Your task to perform on an android device: Open location settings Image 0: 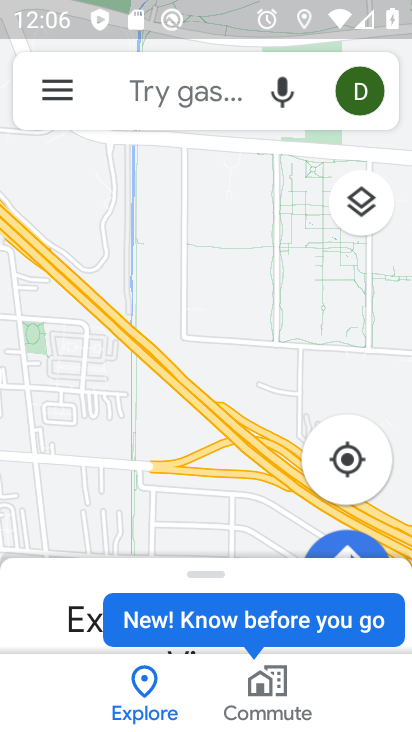
Step 0: press home button
Your task to perform on an android device: Open location settings Image 1: 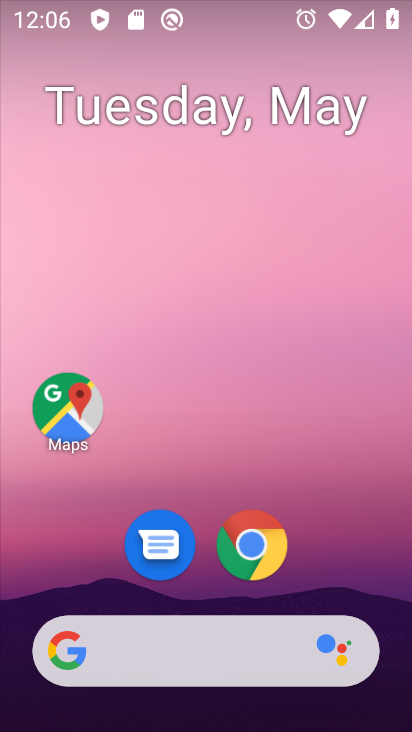
Step 1: drag from (326, 519) to (244, 139)
Your task to perform on an android device: Open location settings Image 2: 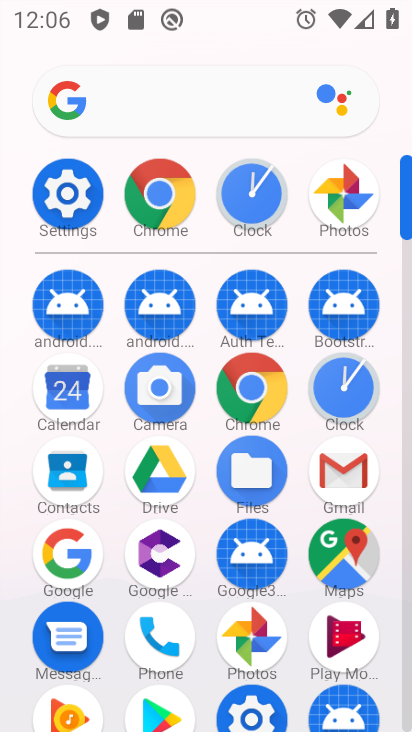
Step 2: click (60, 213)
Your task to perform on an android device: Open location settings Image 3: 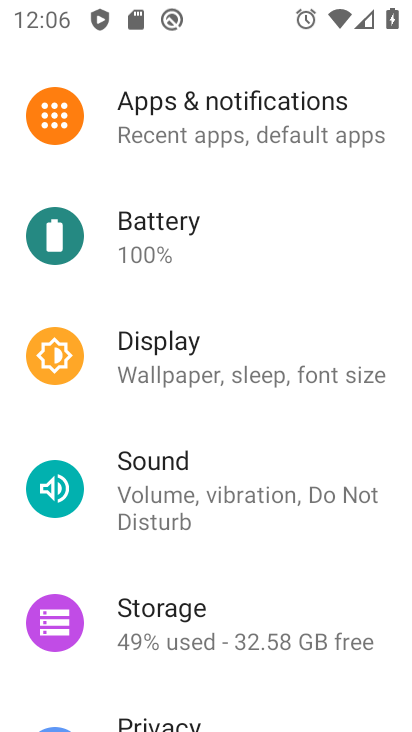
Step 3: drag from (294, 571) to (298, 429)
Your task to perform on an android device: Open location settings Image 4: 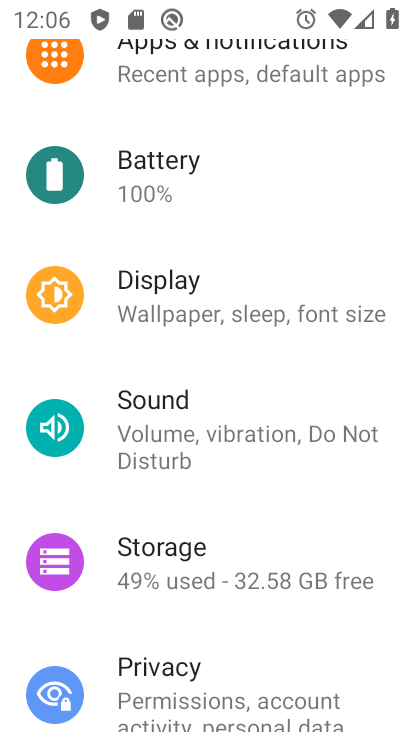
Step 4: drag from (327, 601) to (331, 493)
Your task to perform on an android device: Open location settings Image 5: 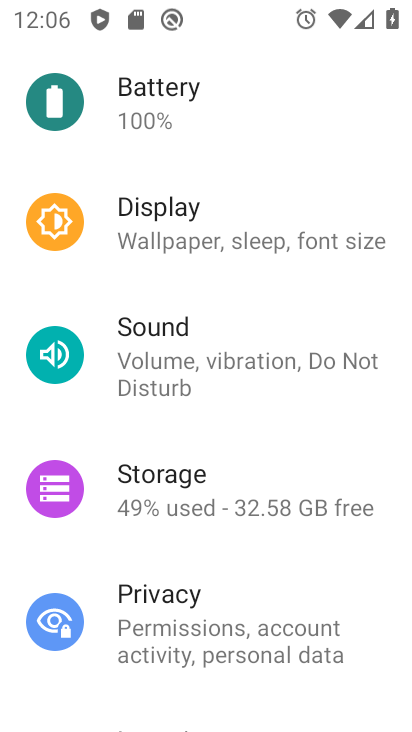
Step 5: drag from (249, 640) to (231, 358)
Your task to perform on an android device: Open location settings Image 6: 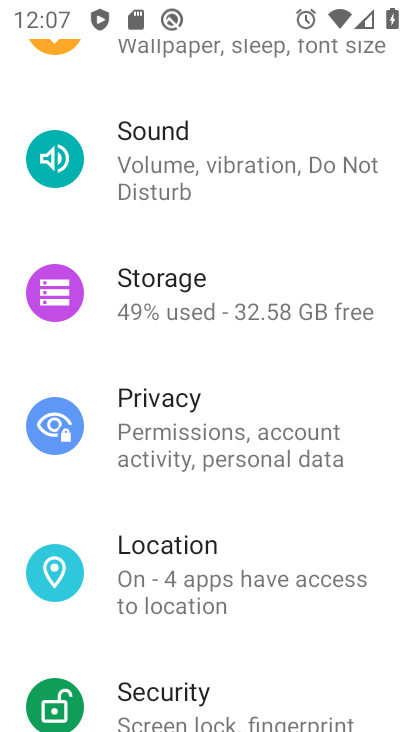
Step 6: click (246, 584)
Your task to perform on an android device: Open location settings Image 7: 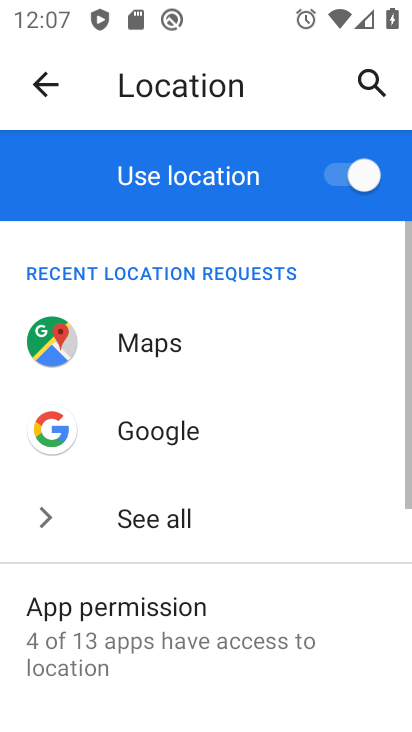
Step 7: task complete